Your task to perform on an android device: delete browsing data in the chrome app Image 0: 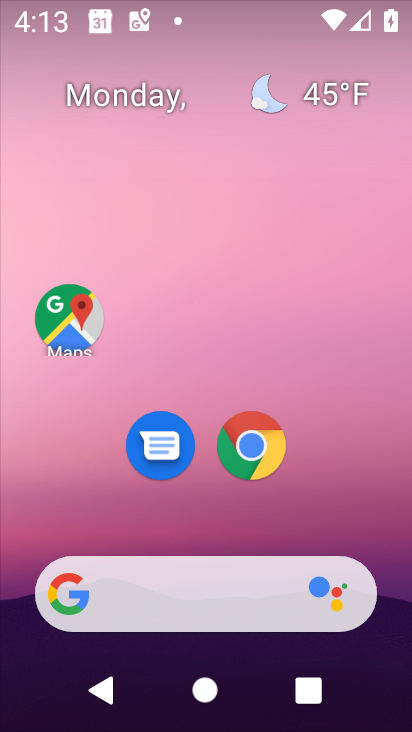
Step 0: click (262, 456)
Your task to perform on an android device: delete browsing data in the chrome app Image 1: 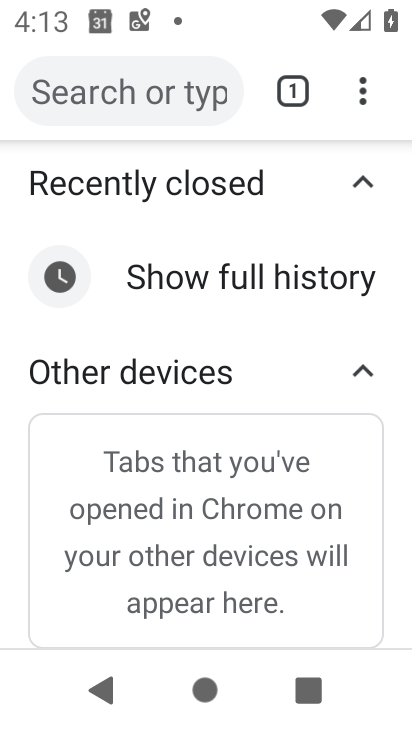
Step 1: click (364, 110)
Your task to perform on an android device: delete browsing data in the chrome app Image 2: 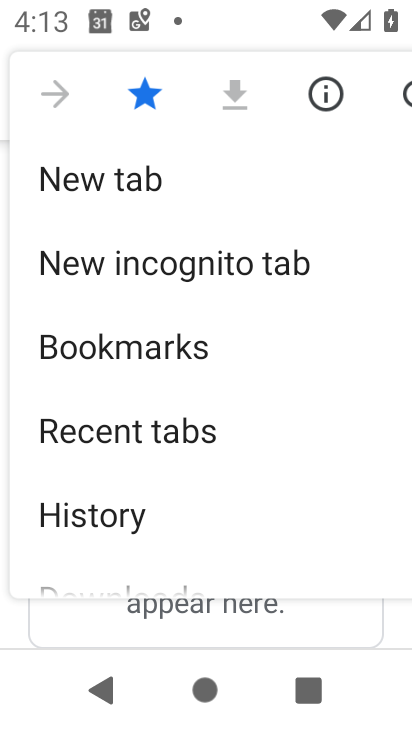
Step 2: drag from (162, 475) to (159, 252)
Your task to perform on an android device: delete browsing data in the chrome app Image 3: 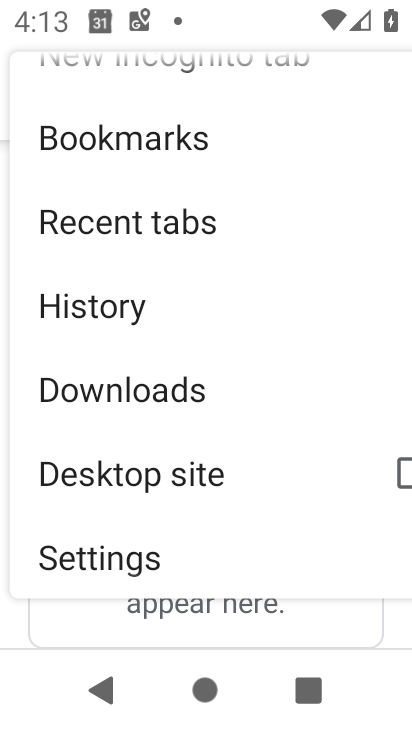
Step 3: drag from (191, 533) to (214, 249)
Your task to perform on an android device: delete browsing data in the chrome app Image 4: 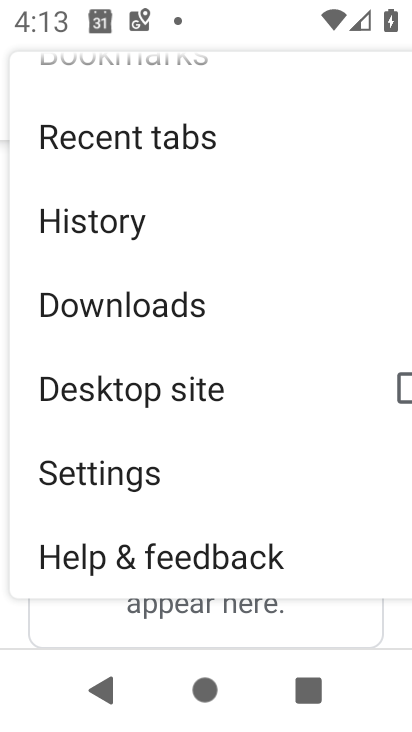
Step 4: click (188, 221)
Your task to perform on an android device: delete browsing data in the chrome app Image 5: 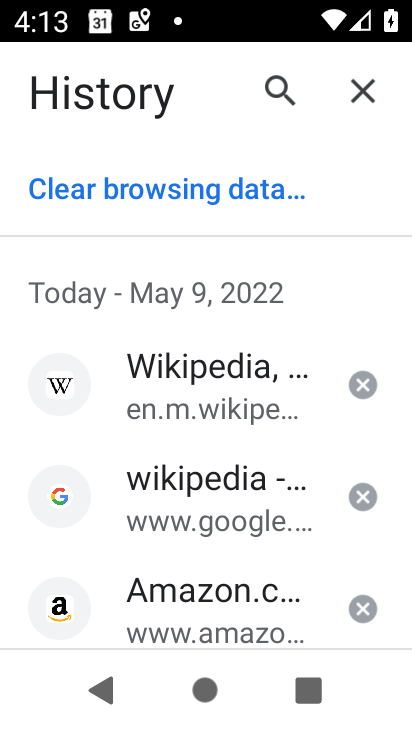
Step 5: click (136, 188)
Your task to perform on an android device: delete browsing data in the chrome app Image 6: 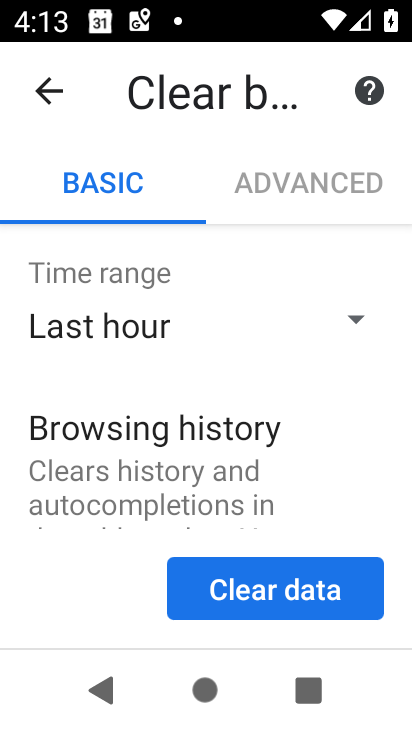
Step 6: click (236, 580)
Your task to perform on an android device: delete browsing data in the chrome app Image 7: 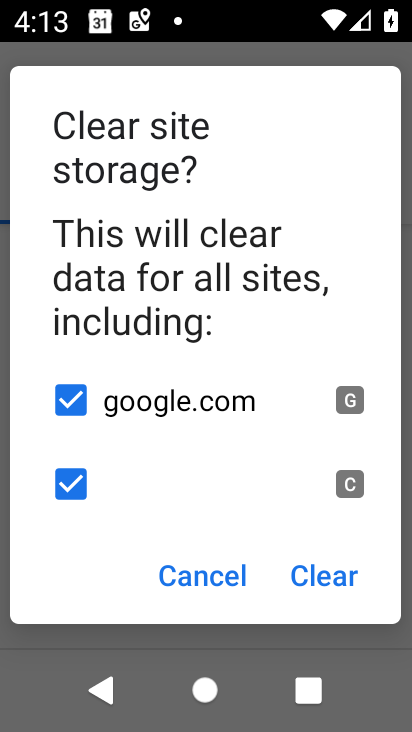
Step 7: click (301, 595)
Your task to perform on an android device: delete browsing data in the chrome app Image 8: 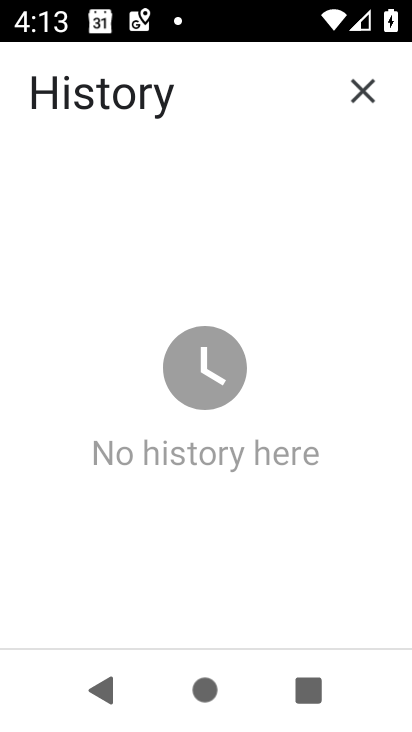
Step 8: task complete